Your task to perform on an android device: Do I have any events today? Image 0: 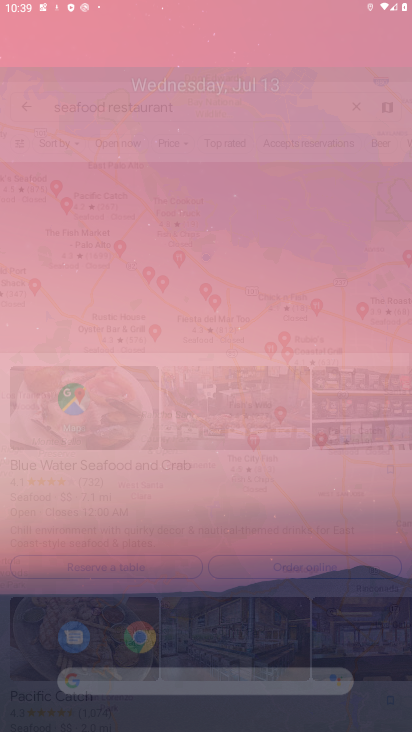
Step 0: drag from (235, 459) to (184, 135)
Your task to perform on an android device: Do I have any events today? Image 1: 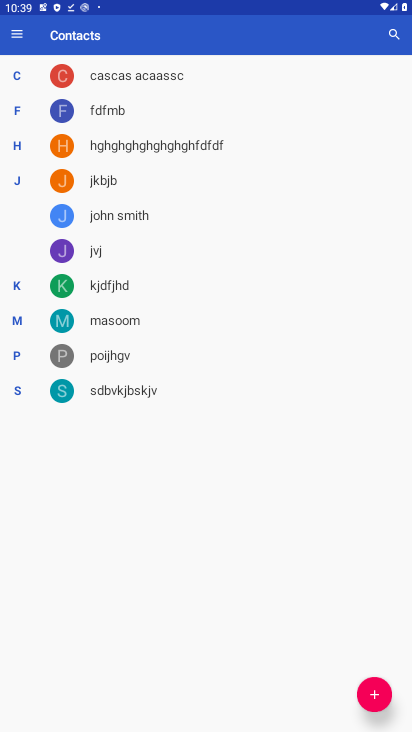
Step 1: press back button
Your task to perform on an android device: Do I have any events today? Image 2: 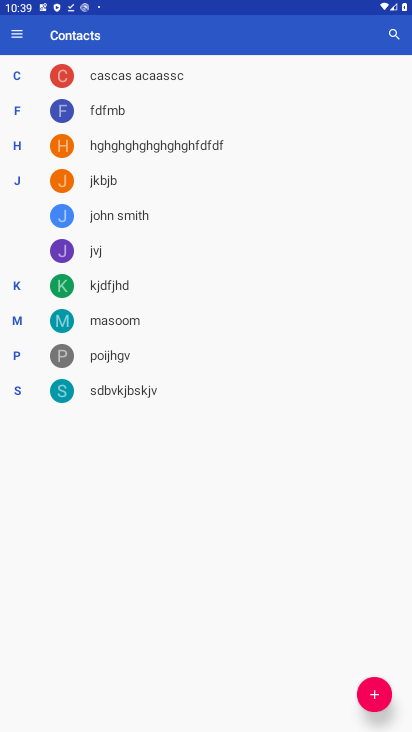
Step 2: press back button
Your task to perform on an android device: Do I have any events today? Image 3: 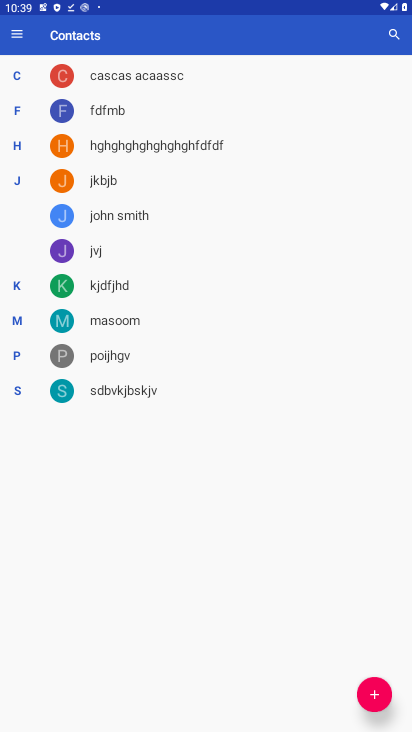
Step 3: press home button
Your task to perform on an android device: Do I have any events today? Image 4: 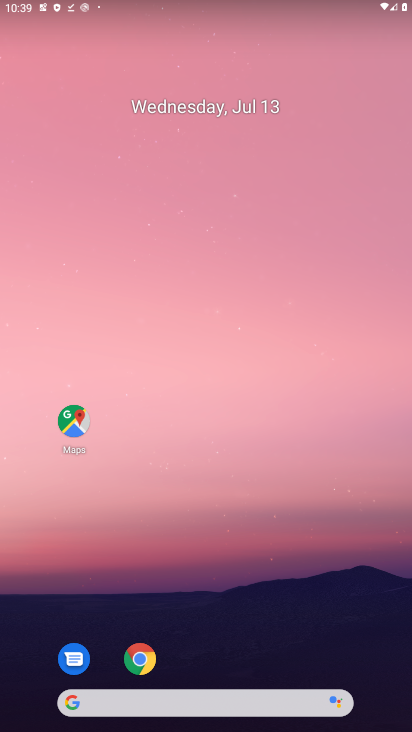
Step 4: drag from (217, 701) to (107, 283)
Your task to perform on an android device: Do I have any events today? Image 5: 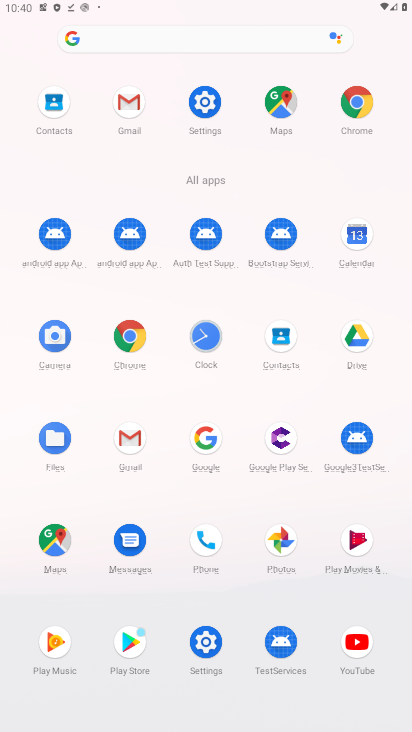
Step 5: click (370, 227)
Your task to perform on an android device: Do I have any events today? Image 6: 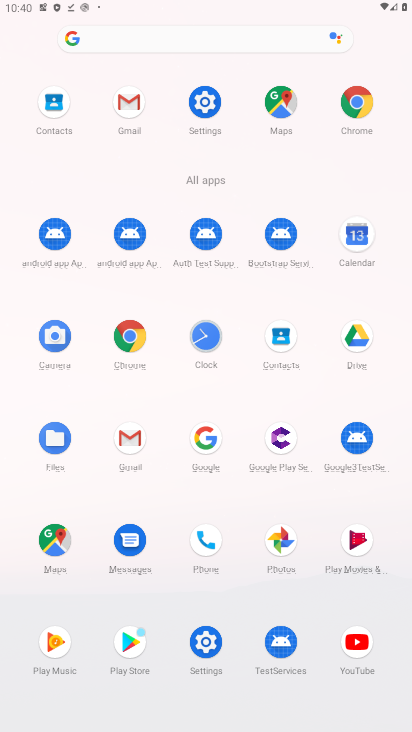
Step 6: click (357, 252)
Your task to perform on an android device: Do I have any events today? Image 7: 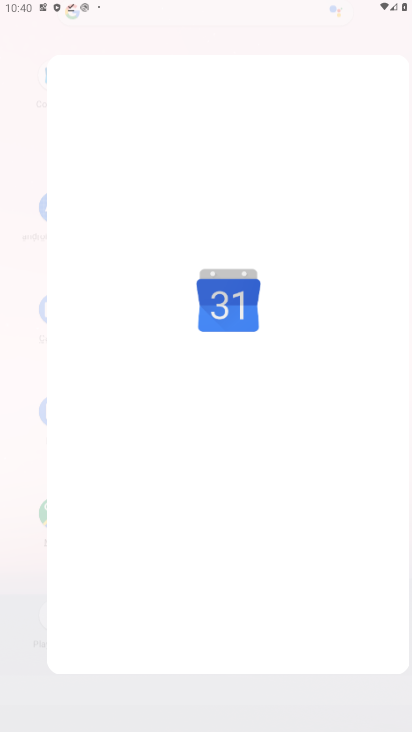
Step 7: click (361, 247)
Your task to perform on an android device: Do I have any events today? Image 8: 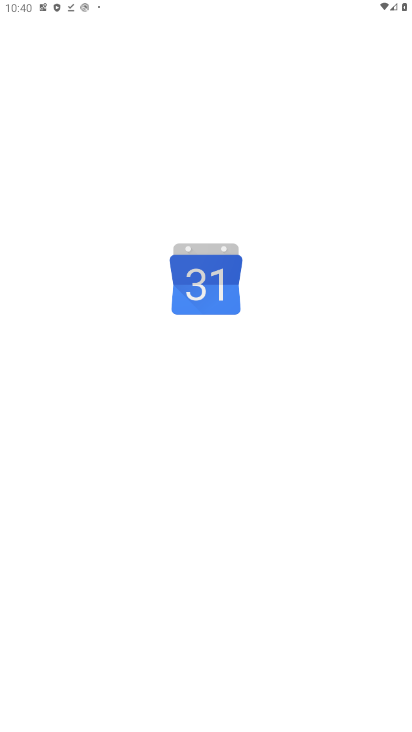
Step 8: click (361, 247)
Your task to perform on an android device: Do I have any events today? Image 9: 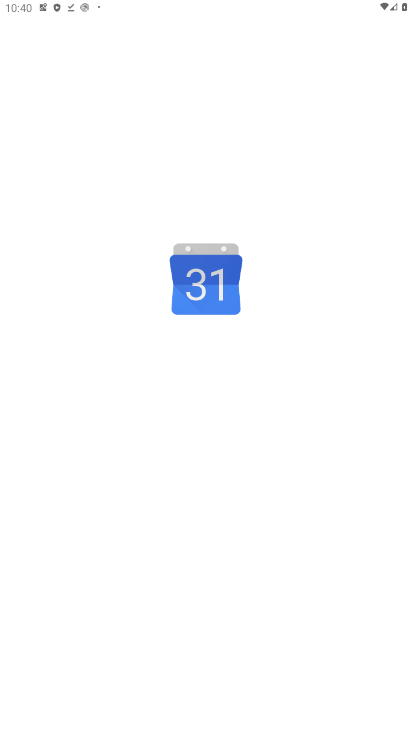
Step 9: click (361, 247)
Your task to perform on an android device: Do I have any events today? Image 10: 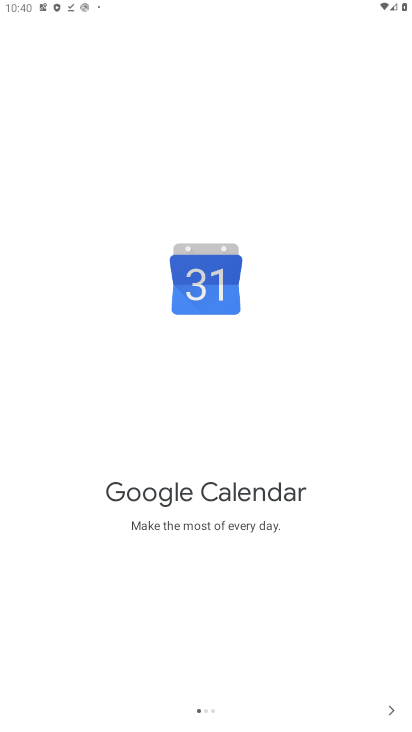
Step 10: click (393, 697)
Your task to perform on an android device: Do I have any events today? Image 11: 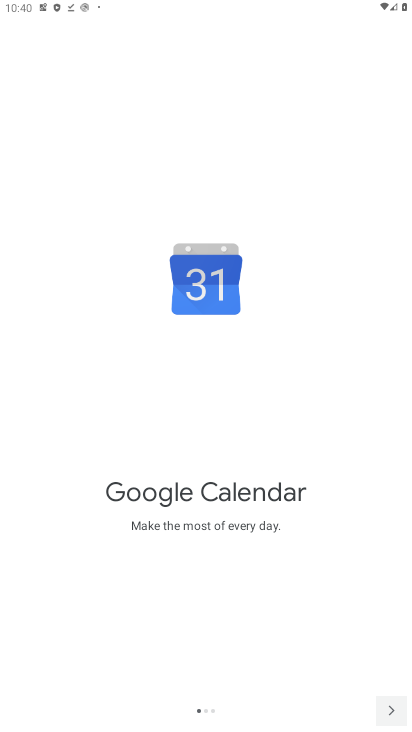
Step 11: click (388, 702)
Your task to perform on an android device: Do I have any events today? Image 12: 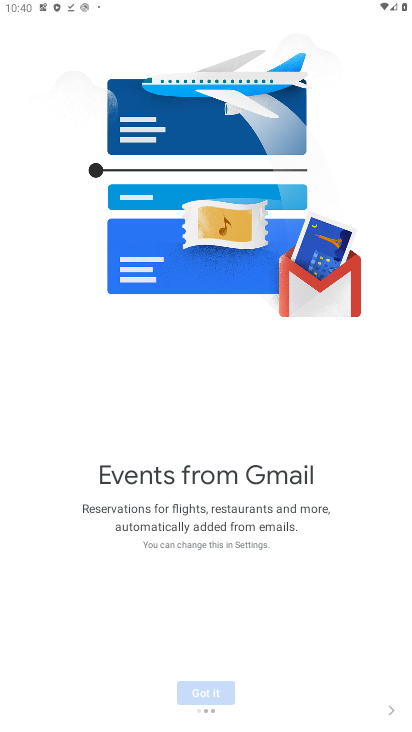
Step 12: click (389, 704)
Your task to perform on an android device: Do I have any events today? Image 13: 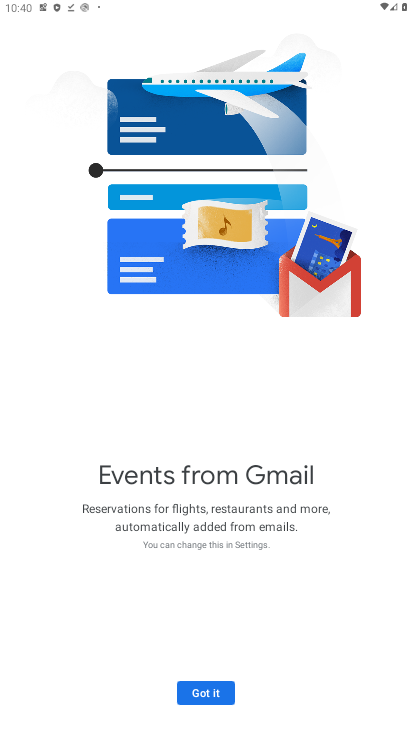
Step 13: click (392, 704)
Your task to perform on an android device: Do I have any events today? Image 14: 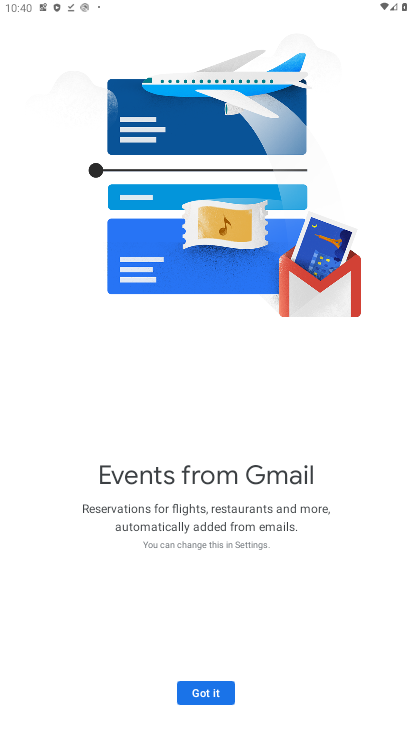
Step 14: click (213, 680)
Your task to perform on an android device: Do I have any events today? Image 15: 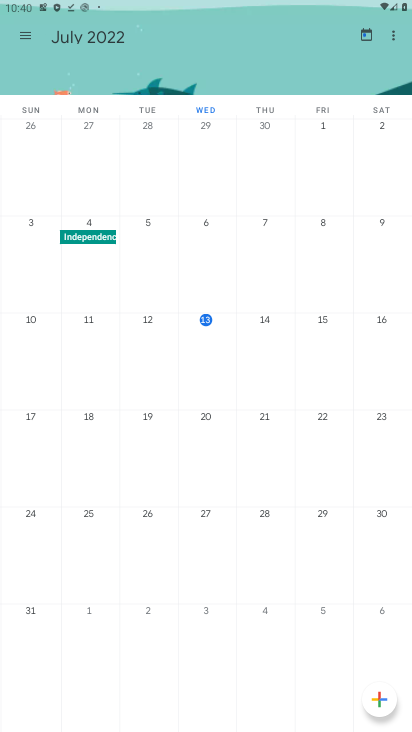
Step 15: click (268, 323)
Your task to perform on an android device: Do I have any events today? Image 16: 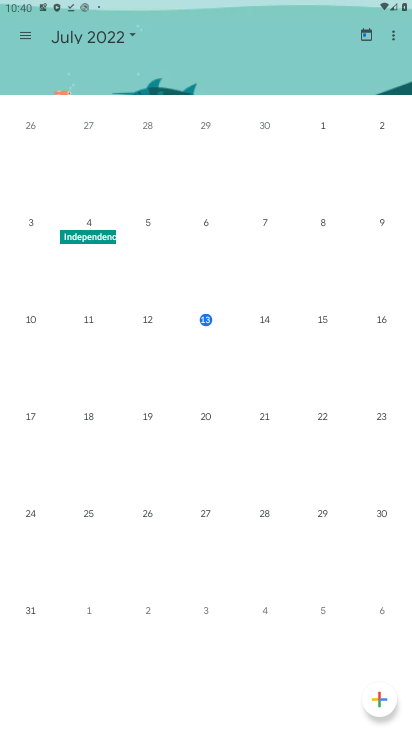
Step 16: click (268, 323)
Your task to perform on an android device: Do I have any events today? Image 17: 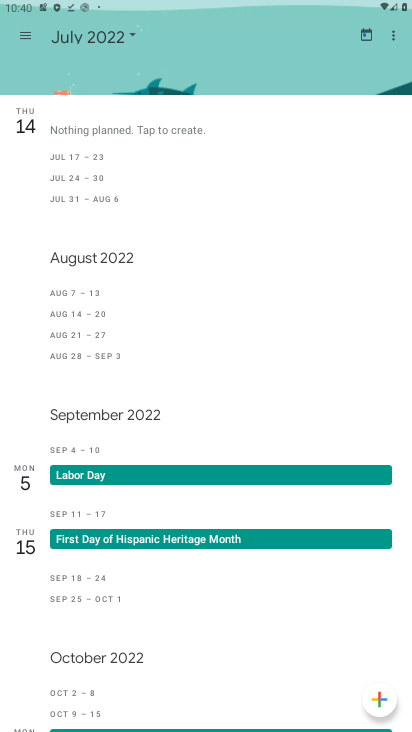
Step 17: click (268, 323)
Your task to perform on an android device: Do I have any events today? Image 18: 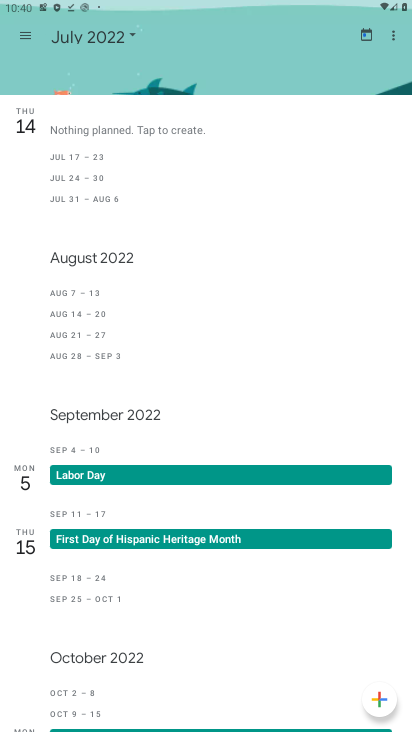
Step 18: click (268, 322)
Your task to perform on an android device: Do I have any events today? Image 19: 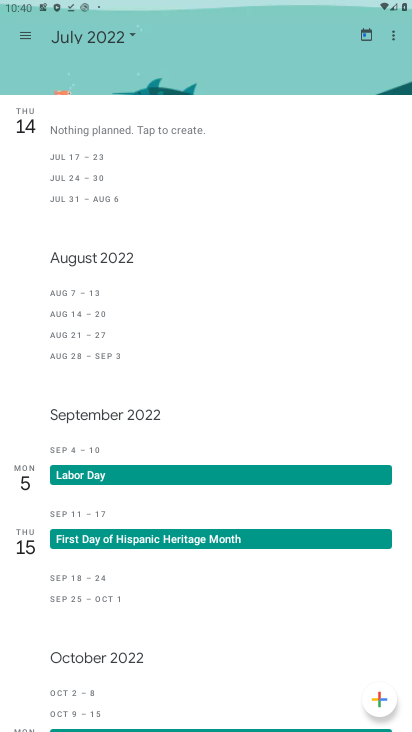
Step 19: task complete